Your task to perform on an android device: change the clock display to show seconds Image 0: 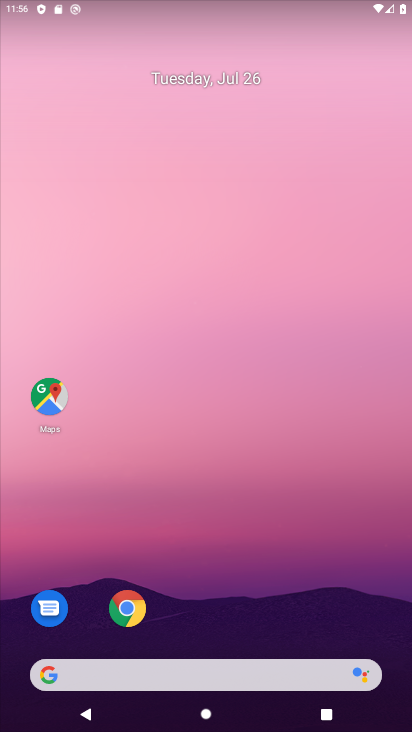
Step 0: press home button
Your task to perform on an android device: change the clock display to show seconds Image 1: 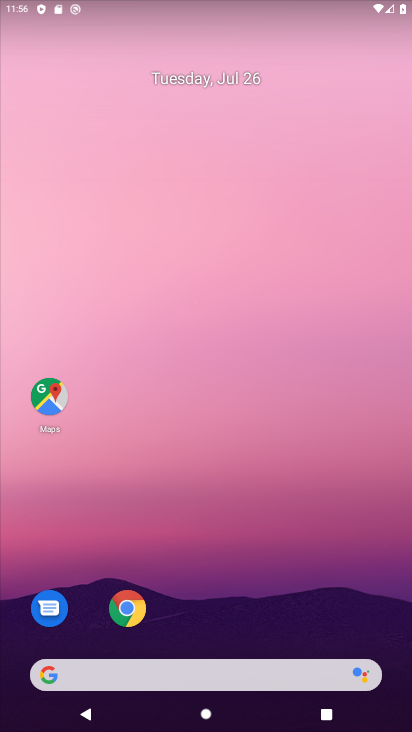
Step 1: drag from (344, 631) to (332, 146)
Your task to perform on an android device: change the clock display to show seconds Image 2: 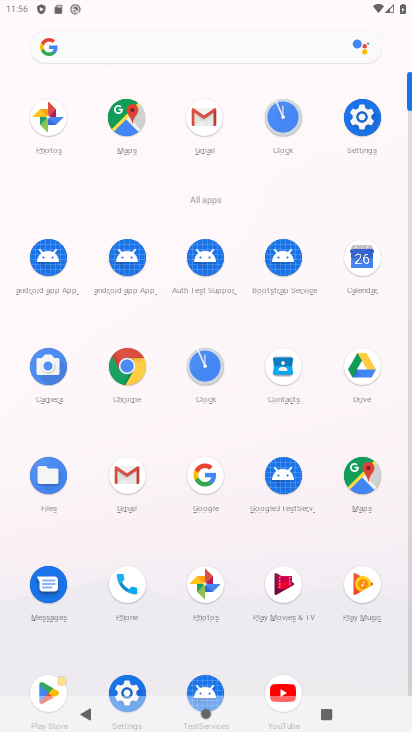
Step 2: click (208, 359)
Your task to perform on an android device: change the clock display to show seconds Image 3: 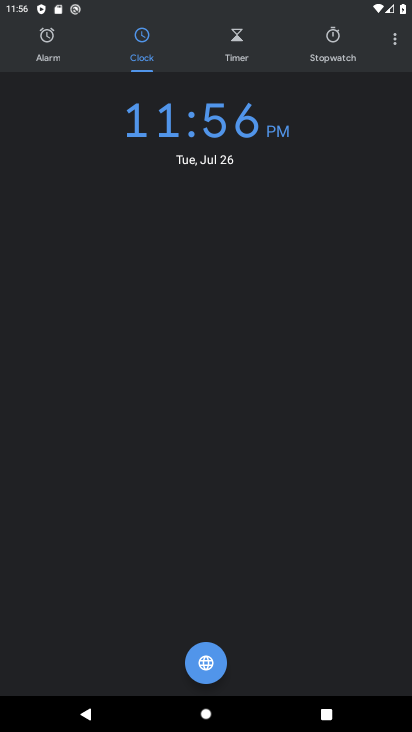
Step 3: click (395, 48)
Your task to perform on an android device: change the clock display to show seconds Image 4: 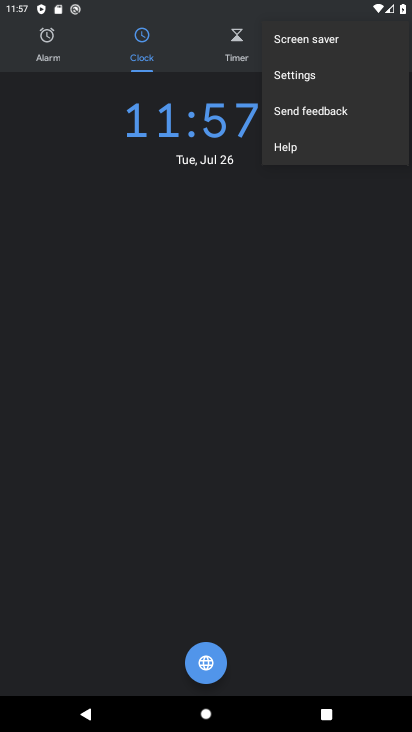
Step 4: click (328, 70)
Your task to perform on an android device: change the clock display to show seconds Image 5: 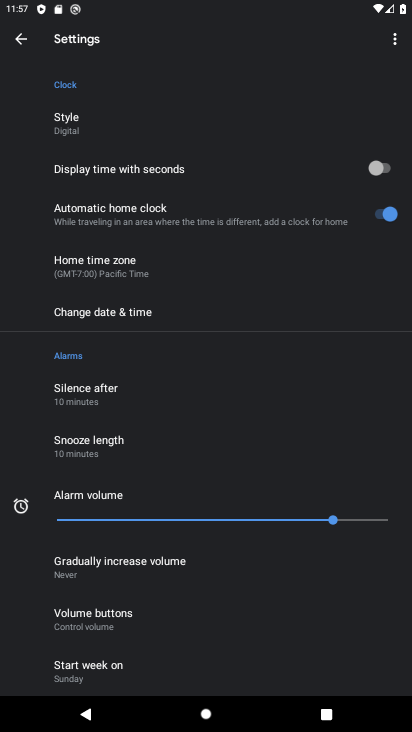
Step 5: drag from (312, 309) to (318, 263)
Your task to perform on an android device: change the clock display to show seconds Image 6: 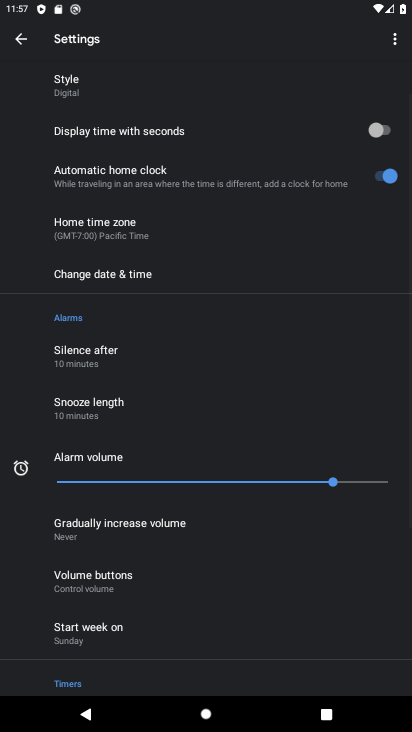
Step 6: click (310, 328)
Your task to perform on an android device: change the clock display to show seconds Image 7: 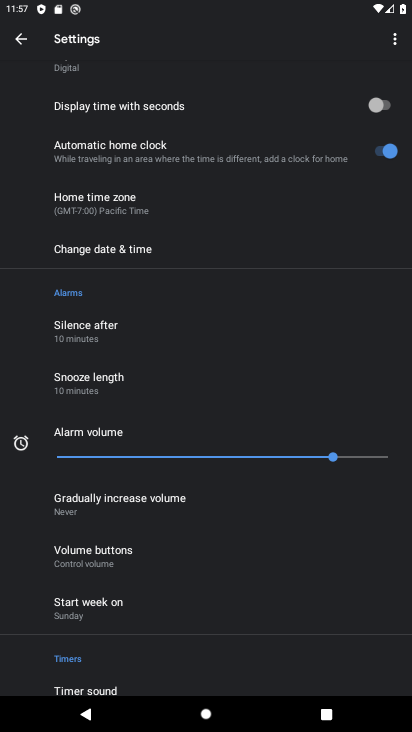
Step 7: drag from (313, 336) to (315, 288)
Your task to perform on an android device: change the clock display to show seconds Image 8: 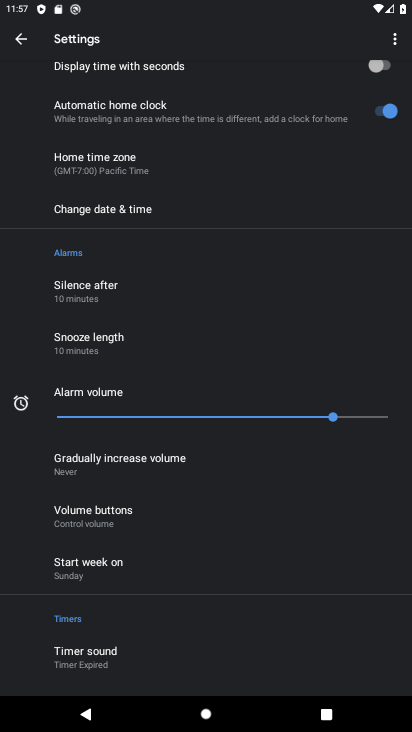
Step 8: drag from (311, 321) to (313, 281)
Your task to perform on an android device: change the clock display to show seconds Image 9: 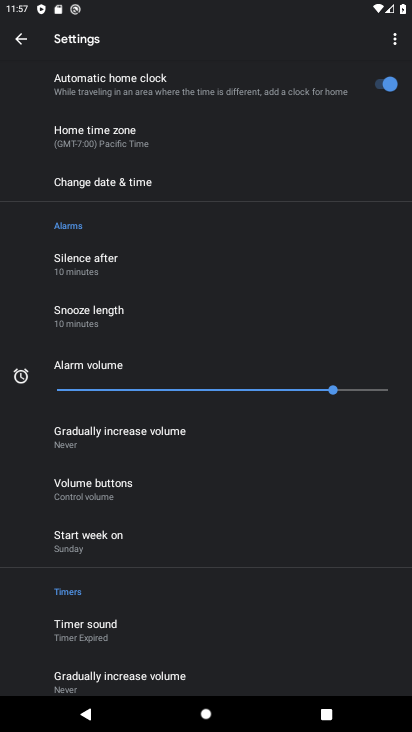
Step 9: drag from (313, 350) to (314, 310)
Your task to perform on an android device: change the clock display to show seconds Image 10: 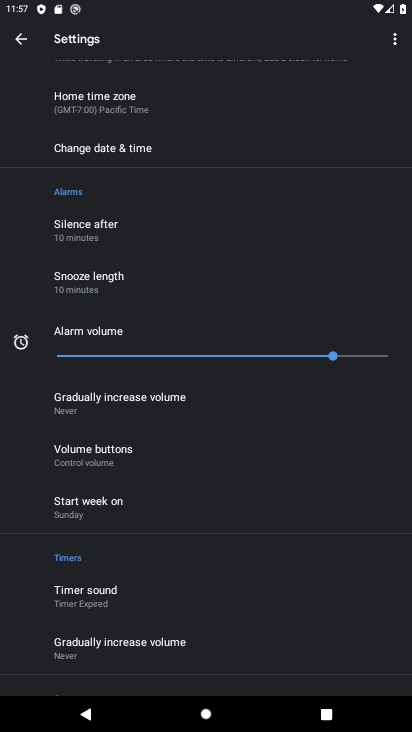
Step 10: drag from (306, 398) to (308, 350)
Your task to perform on an android device: change the clock display to show seconds Image 11: 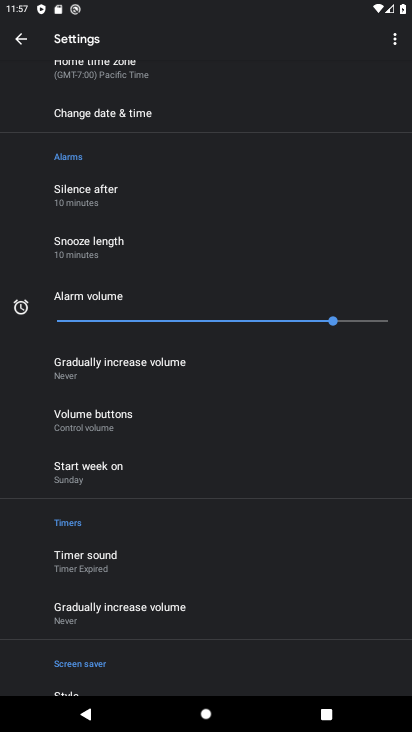
Step 11: drag from (306, 407) to (307, 352)
Your task to perform on an android device: change the clock display to show seconds Image 12: 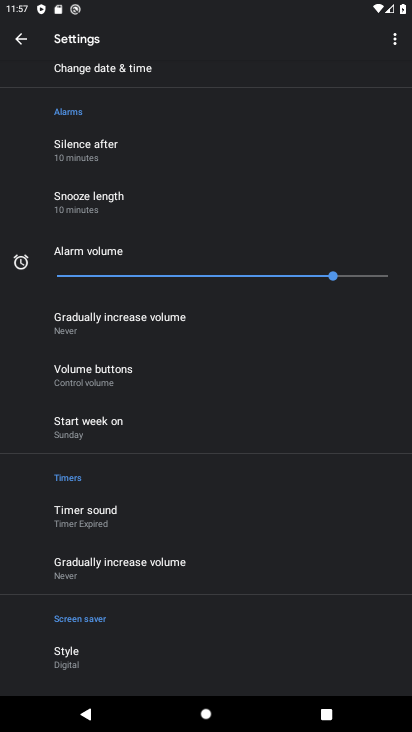
Step 12: drag from (301, 403) to (304, 365)
Your task to perform on an android device: change the clock display to show seconds Image 13: 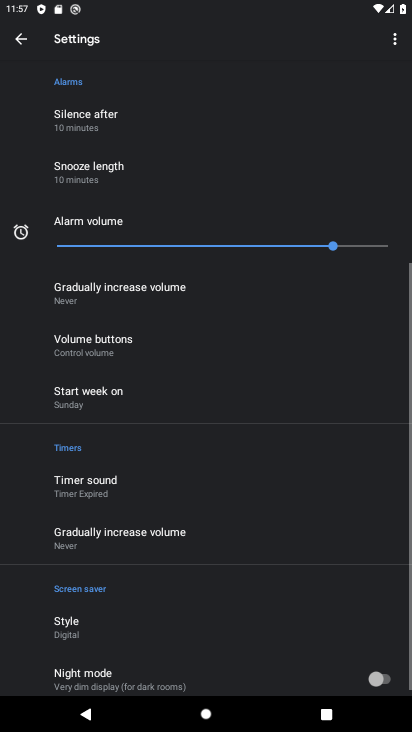
Step 13: drag from (312, 310) to (314, 354)
Your task to perform on an android device: change the clock display to show seconds Image 14: 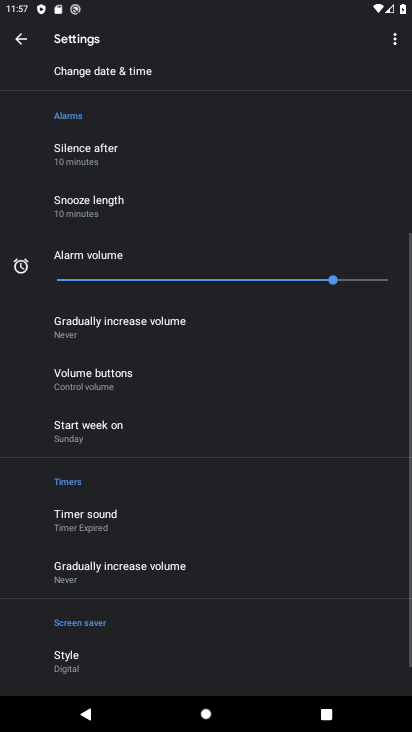
Step 14: drag from (319, 266) to (319, 322)
Your task to perform on an android device: change the clock display to show seconds Image 15: 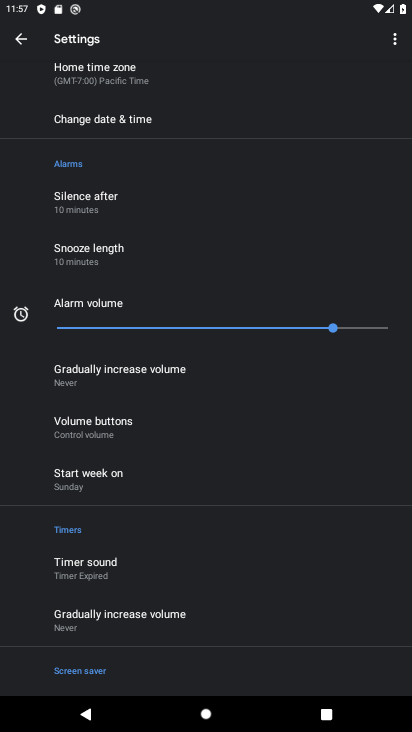
Step 15: drag from (320, 231) to (321, 296)
Your task to perform on an android device: change the clock display to show seconds Image 16: 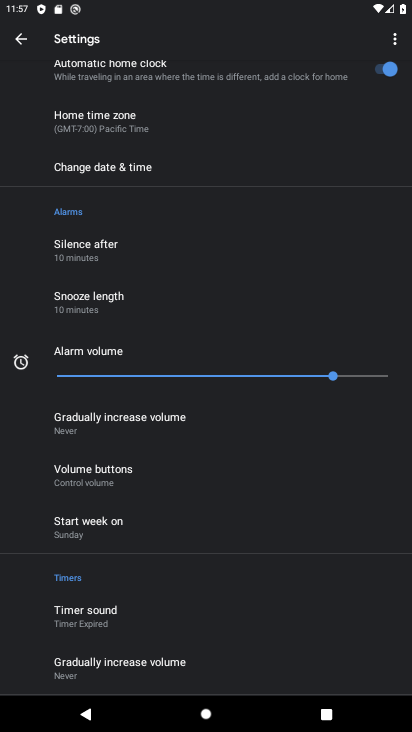
Step 16: drag from (325, 227) to (329, 290)
Your task to perform on an android device: change the clock display to show seconds Image 17: 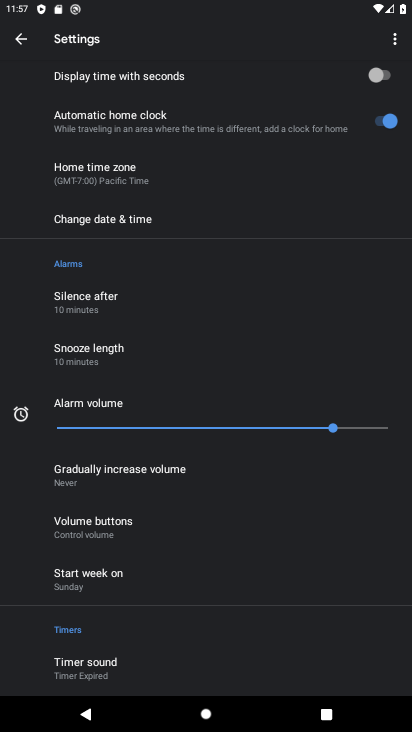
Step 17: drag from (329, 222) to (328, 294)
Your task to perform on an android device: change the clock display to show seconds Image 18: 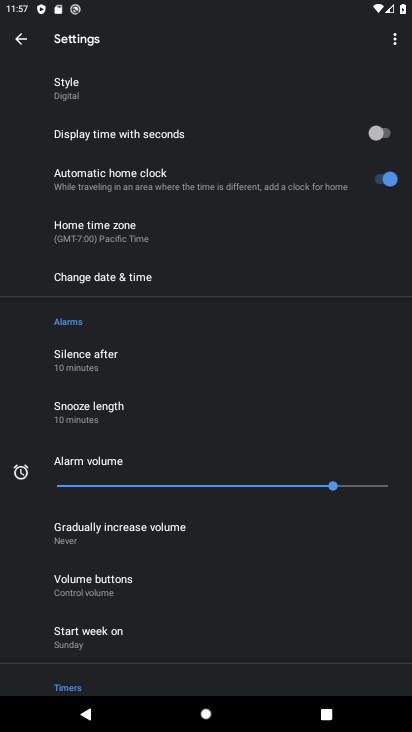
Step 18: drag from (331, 210) to (332, 311)
Your task to perform on an android device: change the clock display to show seconds Image 19: 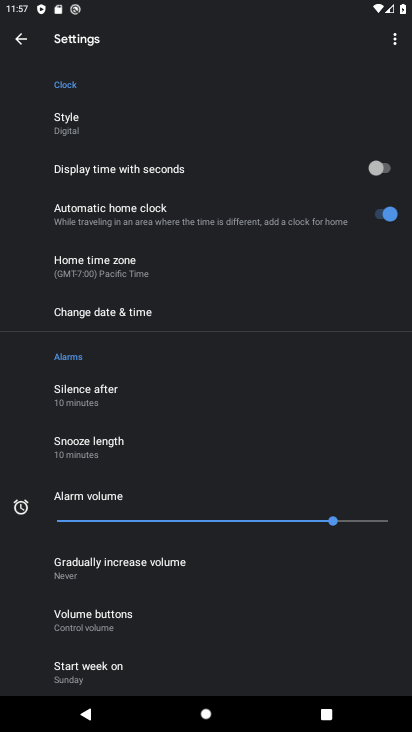
Step 19: click (370, 173)
Your task to perform on an android device: change the clock display to show seconds Image 20: 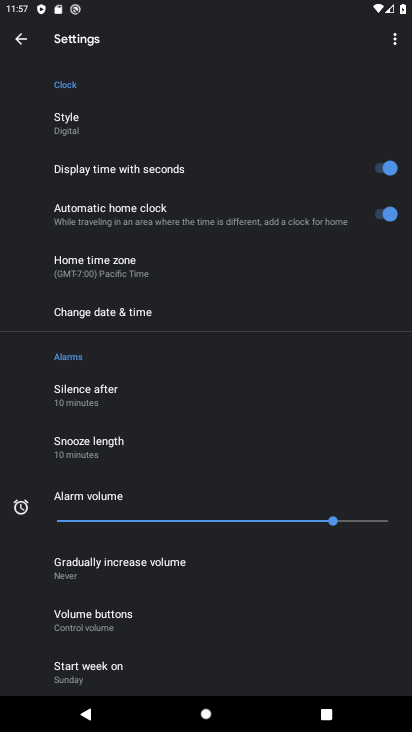
Step 20: task complete